Your task to perform on an android device: Go to Wikipedia Image 0: 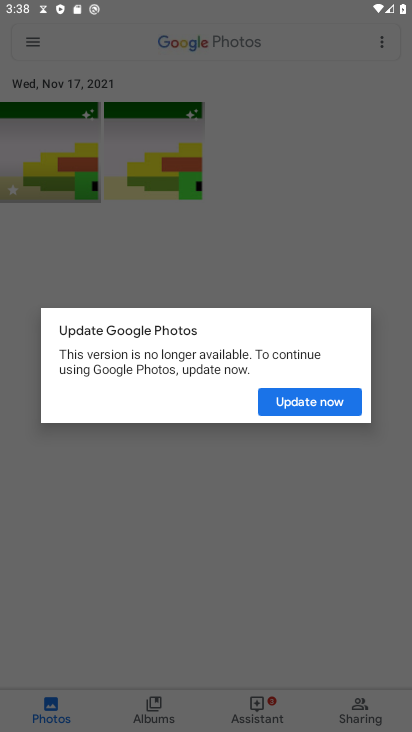
Step 0: press home button
Your task to perform on an android device: Go to Wikipedia Image 1: 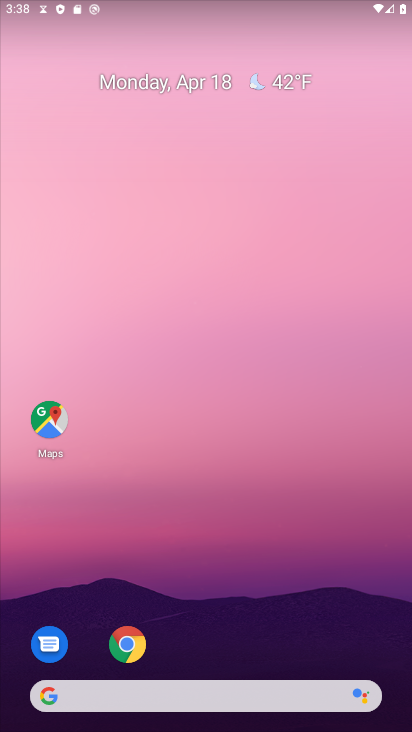
Step 1: click (127, 638)
Your task to perform on an android device: Go to Wikipedia Image 2: 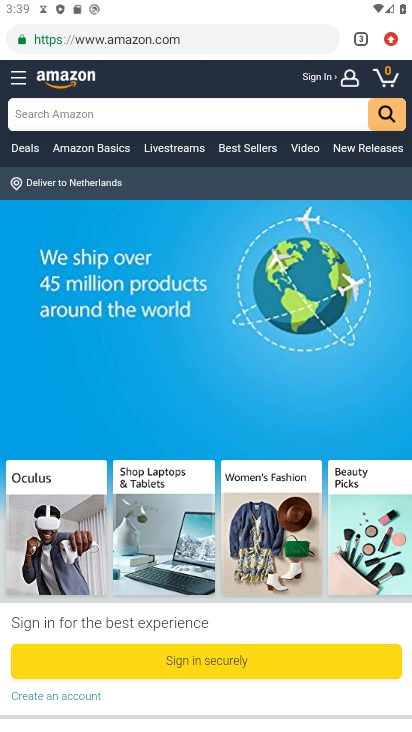
Step 2: click (358, 37)
Your task to perform on an android device: Go to Wikipedia Image 3: 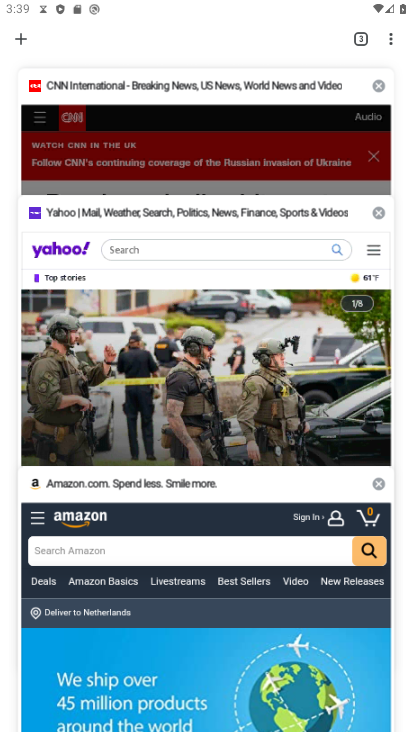
Step 3: click (10, 33)
Your task to perform on an android device: Go to Wikipedia Image 4: 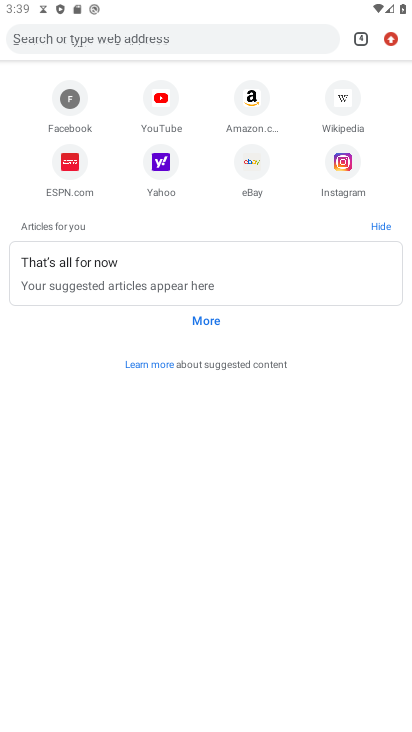
Step 4: click (342, 103)
Your task to perform on an android device: Go to Wikipedia Image 5: 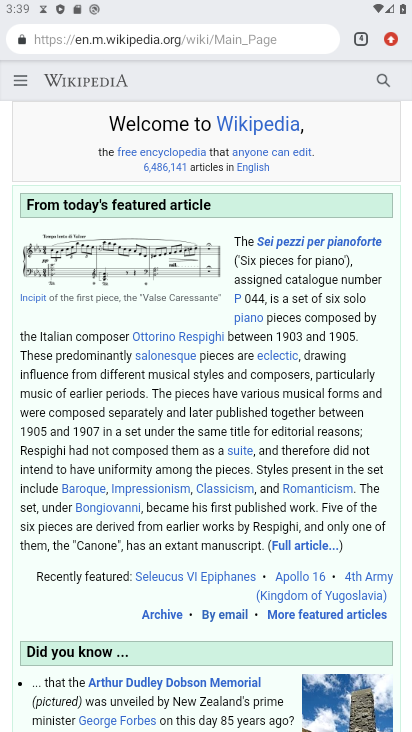
Step 5: task complete